Your task to perform on an android device: all mails in gmail Image 0: 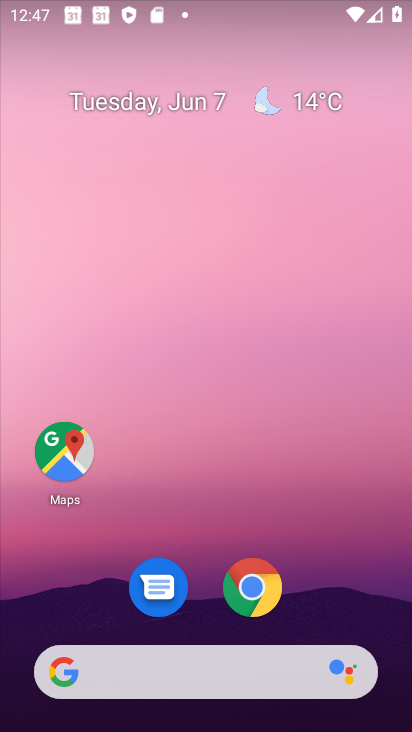
Step 0: click (318, 100)
Your task to perform on an android device: all mails in gmail Image 1: 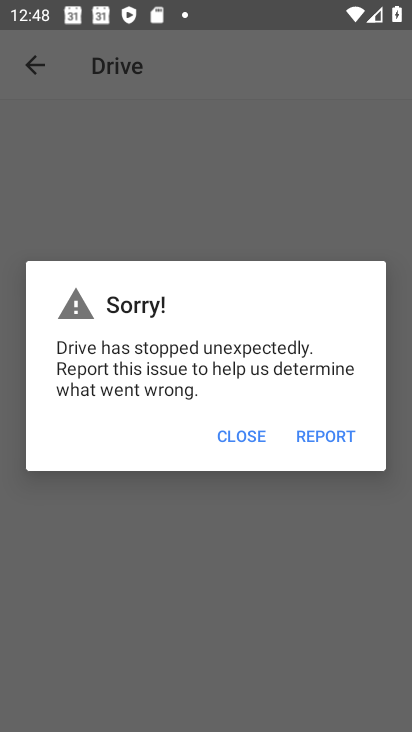
Step 1: press home button
Your task to perform on an android device: all mails in gmail Image 2: 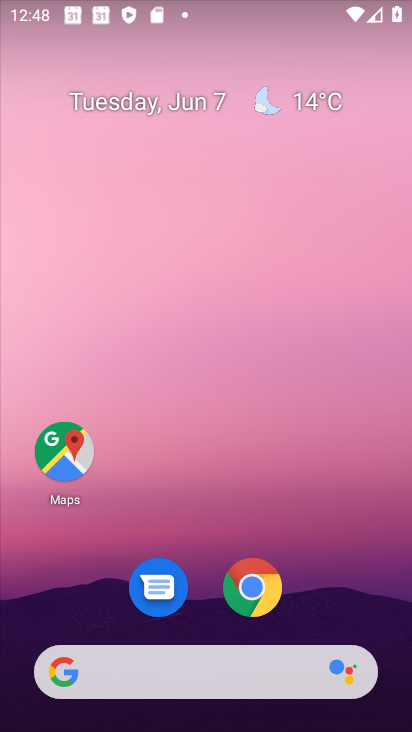
Step 2: drag from (207, 463) to (268, 141)
Your task to perform on an android device: all mails in gmail Image 3: 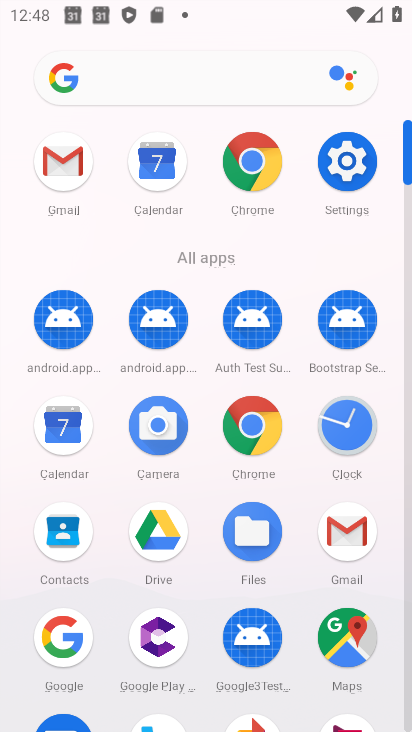
Step 3: click (369, 527)
Your task to perform on an android device: all mails in gmail Image 4: 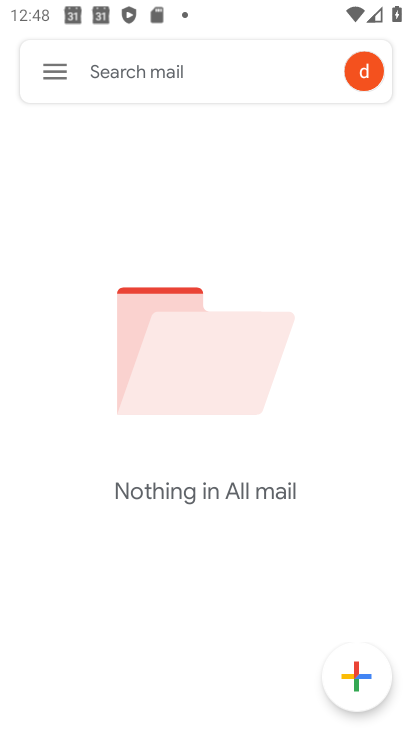
Step 4: task complete